Your task to perform on an android device: change the clock display to digital Image 0: 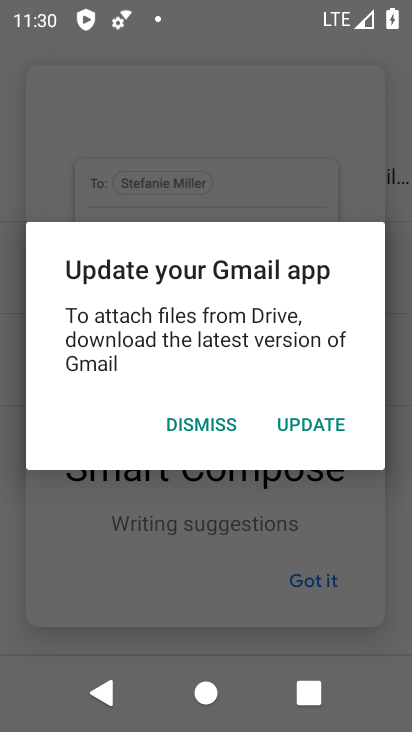
Step 0: press home button
Your task to perform on an android device: change the clock display to digital Image 1: 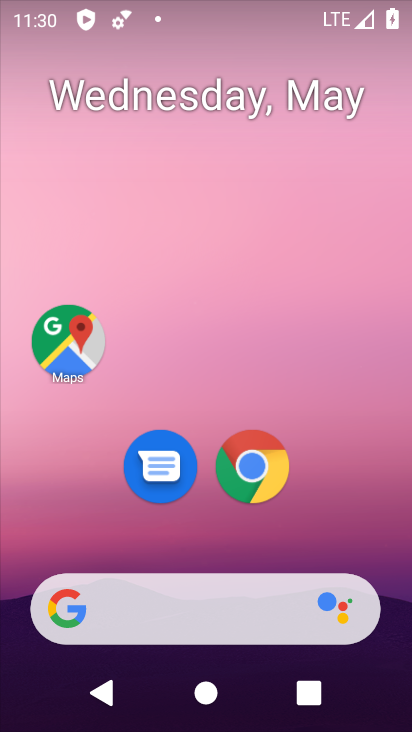
Step 1: drag from (183, 508) to (257, 73)
Your task to perform on an android device: change the clock display to digital Image 2: 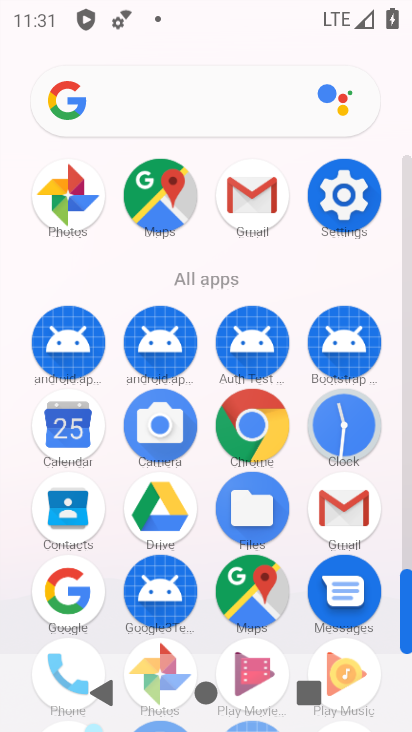
Step 2: click (339, 453)
Your task to perform on an android device: change the clock display to digital Image 3: 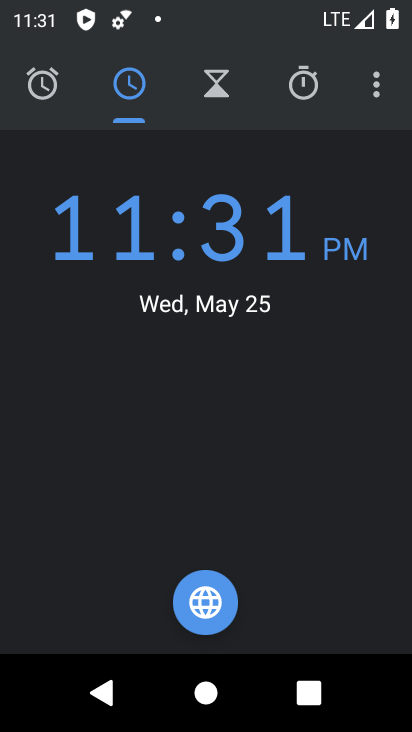
Step 3: click (382, 90)
Your task to perform on an android device: change the clock display to digital Image 4: 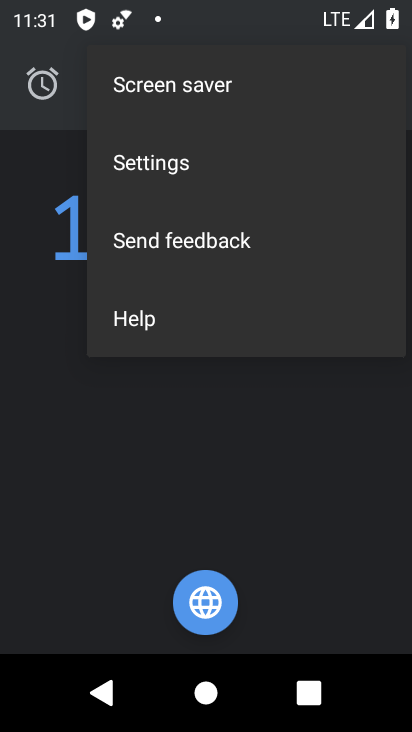
Step 4: click (195, 163)
Your task to perform on an android device: change the clock display to digital Image 5: 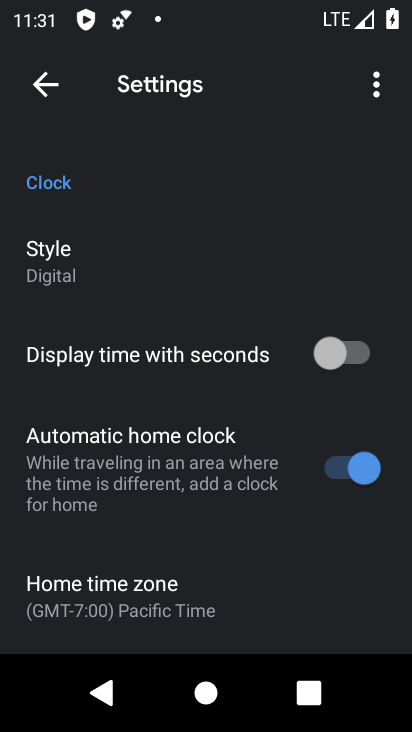
Step 5: task complete